Your task to perform on an android device: change the clock display to analog Image 0: 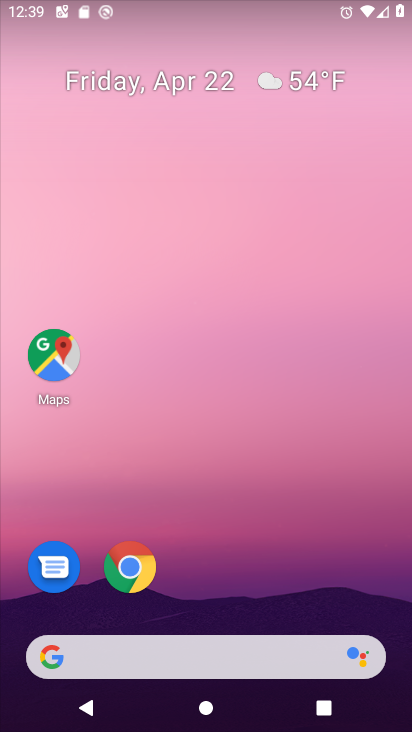
Step 0: drag from (243, 607) to (293, 0)
Your task to perform on an android device: change the clock display to analog Image 1: 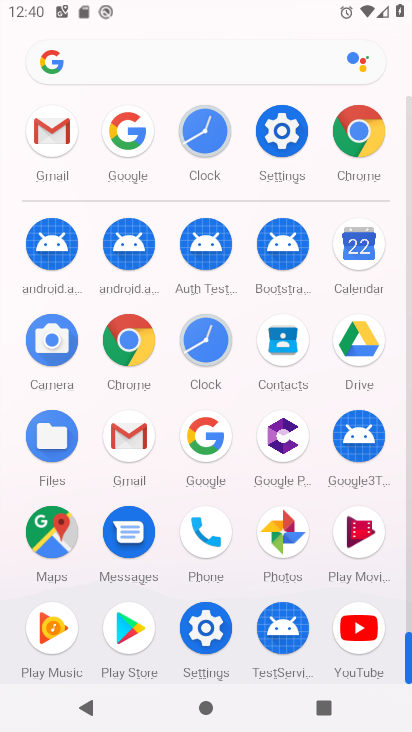
Step 1: click (196, 360)
Your task to perform on an android device: change the clock display to analog Image 2: 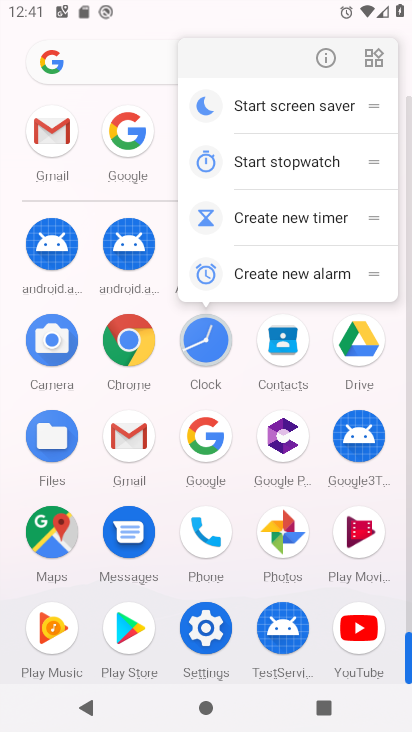
Step 2: click (214, 361)
Your task to perform on an android device: change the clock display to analog Image 3: 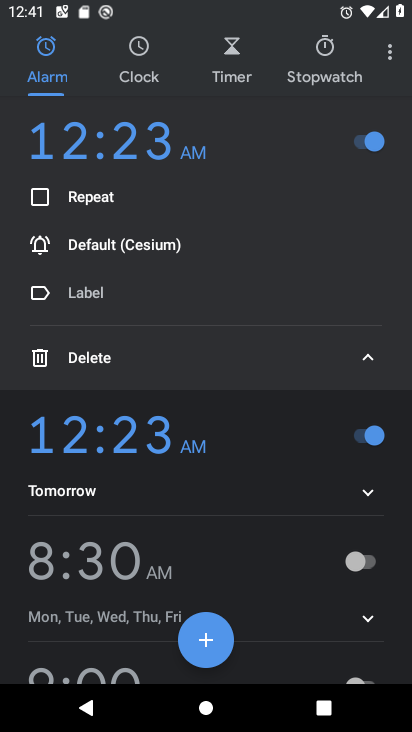
Step 3: click (386, 51)
Your task to perform on an android device: change the clock display to analog Image 4: 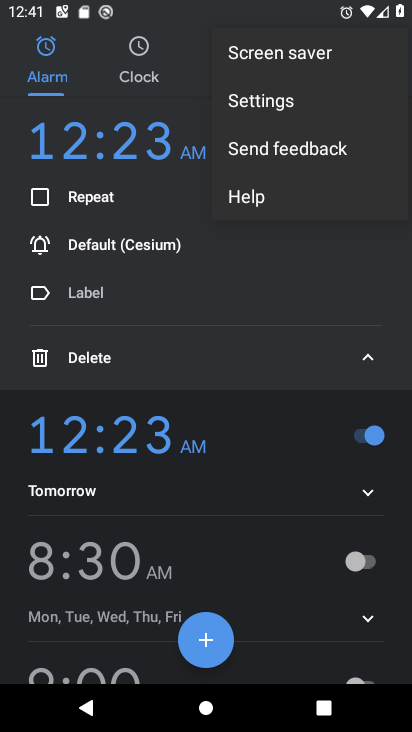
Step 4: click (303, 105)
Your task to perform on an android device: change the clock display to analog Image 5: 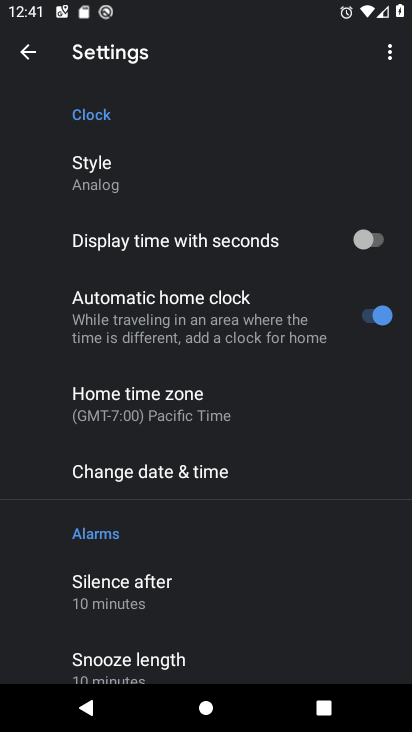
Step 5: task complete